Your task to perform on an android device: set the timer Image 0: 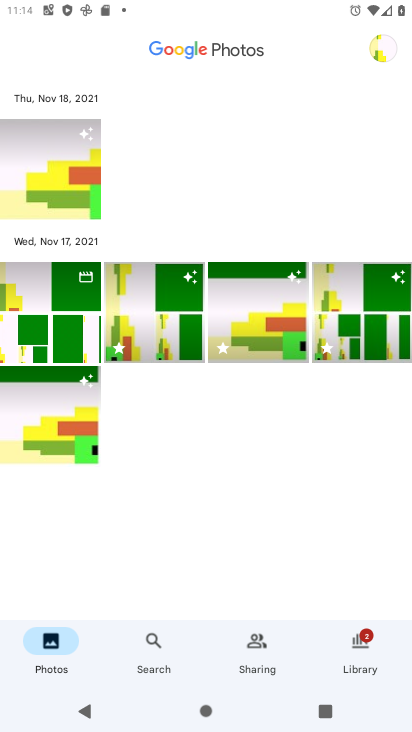
Step 0: press home button
Your task to perform on an android device: set the timer Image 1: 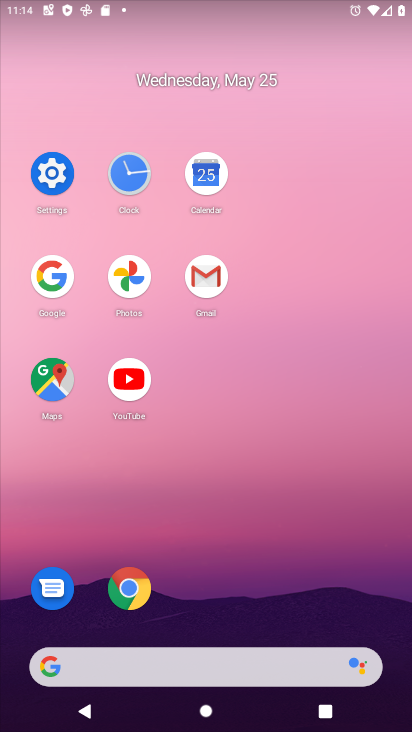
Step 1: click (125, 174)
Your task to perform on an android device: set the timer Image 2: 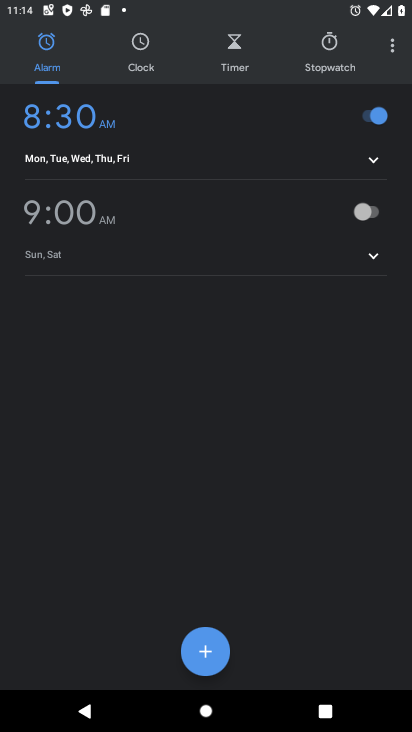
Step 2: click (254, 33)
Your task to perform on an android device: set the timer Image 3: 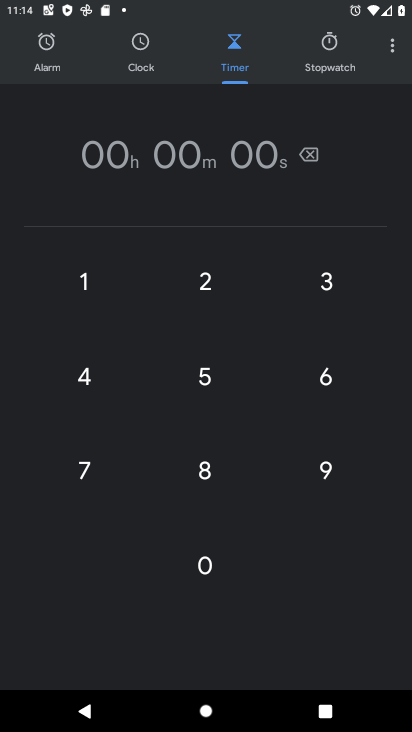
Step 3: click (219, 294)
Your task to perform on an android device: set the timer Image 4: 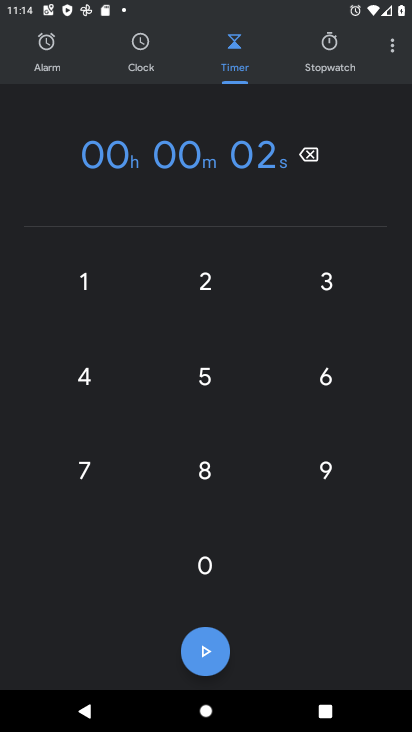
Step 4: click (222, 290)
Your task to perform on an android device: set the timer Image 5: 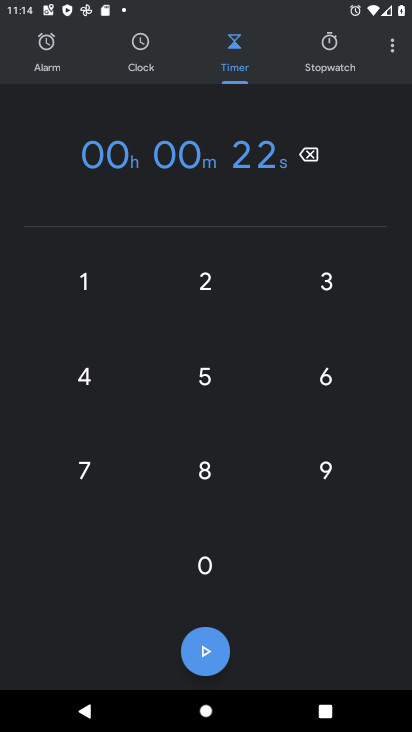
Step 5: click (211, 649)
Your task to perform on an android device: set the timer Image 6: 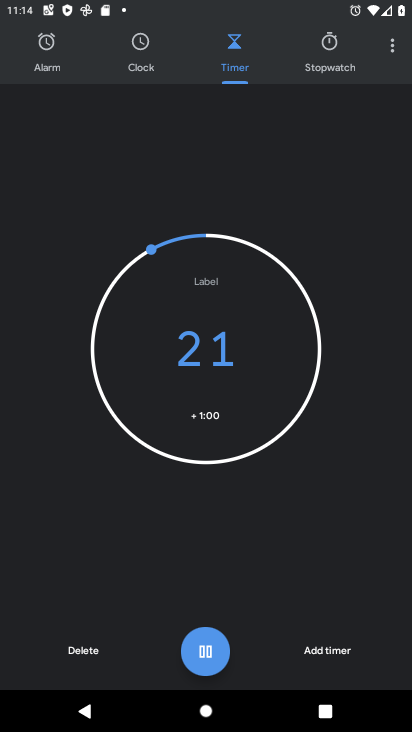
Step 6: task complete